Your task to perform on an android device: Install the eBay app Image 0: 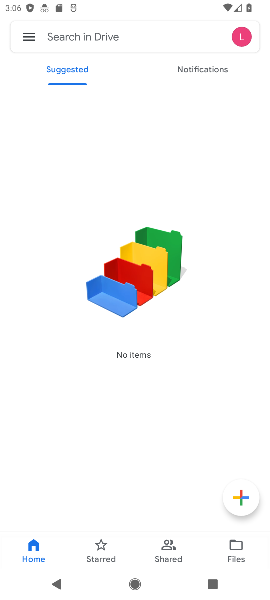
Step 0: press home button
Your task to perform on an android device: Install the eBay app Image 1: 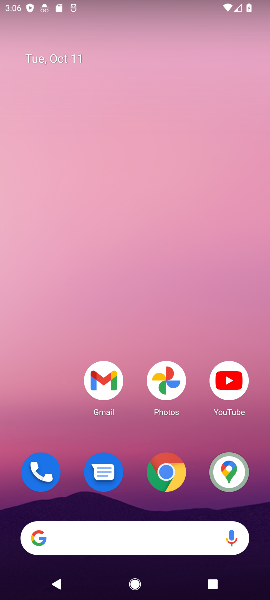
Step 1: drag from (130, 491) to (175, 105)
Your task to perform on an android device: Install the eBay app Image 2: 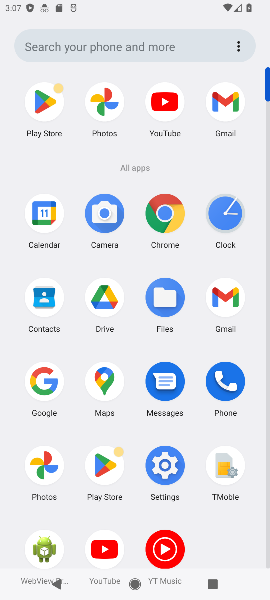
Step 2: click (36, 108)
Your task to perform on an android device: Install the eBay app Image 3: 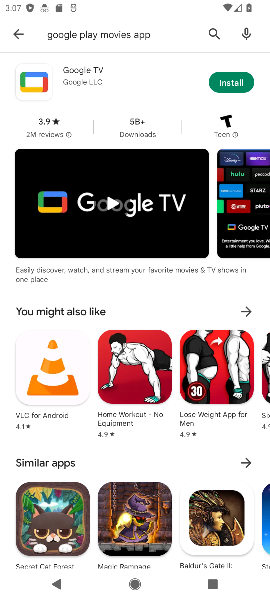
Step 3: click (185, 37)
Your task to perform on an android device: Install the eBay app Image 4: 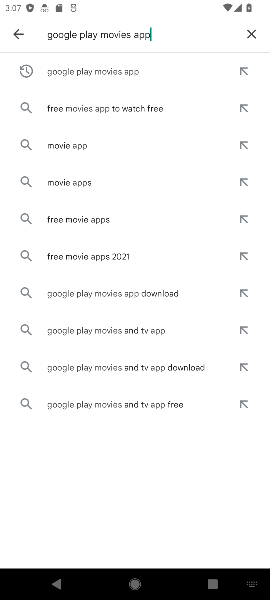
Step 4: click (247, 34)
Your task to perform on an android device: Install the eBay app Image 5: 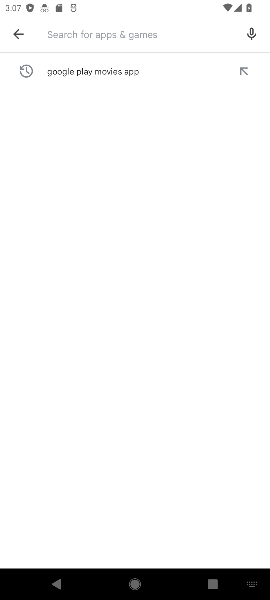
Step 5: type "ebay"
Your task to perform on an android device: Install the eBay app Image 6: 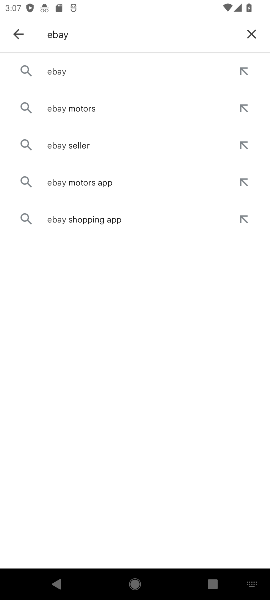
Step 6: click (127, 68)
Your task to perform on an android device: Install the eBay app Image 7: 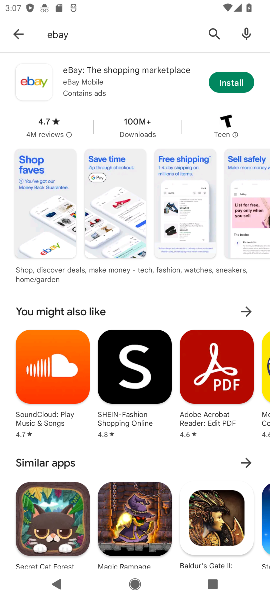
Step 7: click (238, 84)
Your task to perform on an android device: Install the eBay app Image 8: 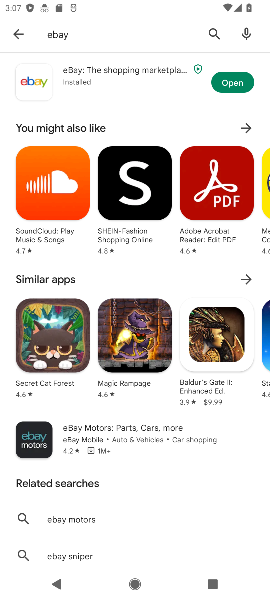
Step 8: task complete